Your task to perform on an android device: Search for Italian restaurants on Maps Image 0: 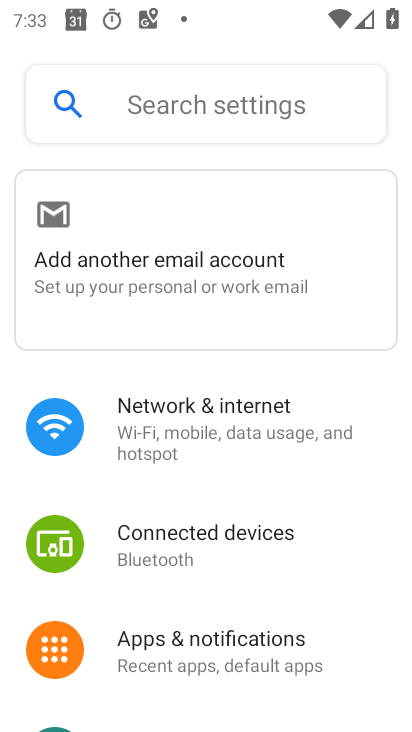
Step 0: press home button
Your task to perform on an android device: Search for Italian restaurants on Maps Image 1: 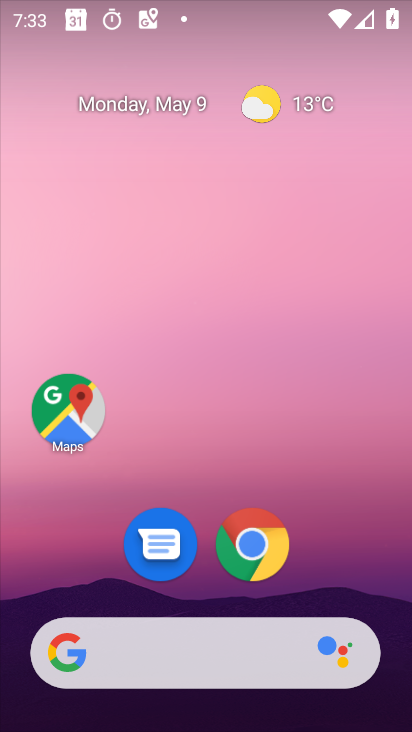
Step 1: drag from (357, 564) to (323, 128)
Your task to perform on an android device: Search for Italian restaurants on Maps Image 2: 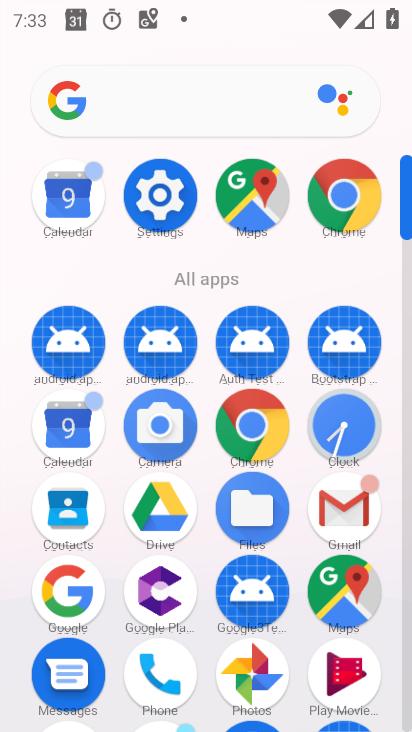
Step 2: click (257, 195)
Your task to perform on an android device: Search for Italian restaurants on Maps Image 3: 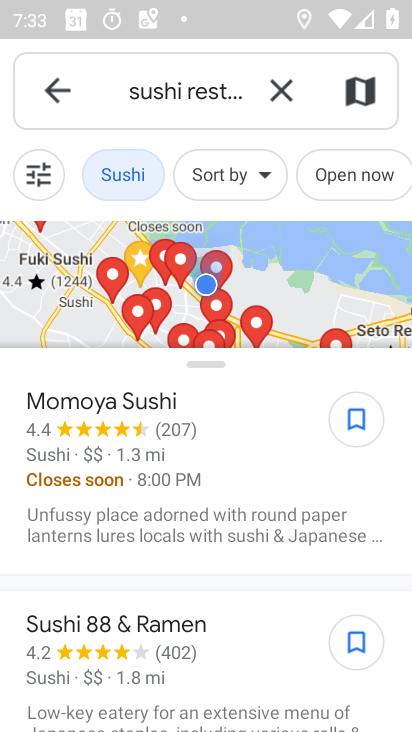
Step 3: click (283, 67)
Your task to perform on an android device: Search for Italian restaurants on Maps Image 4: 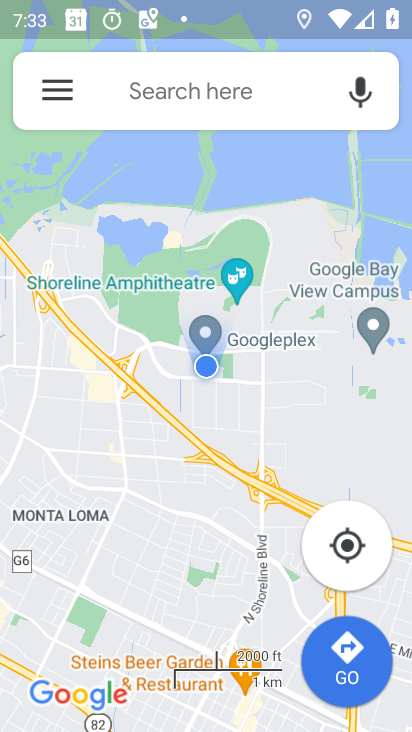
Step 4: click (249, 95)
Your task to perform on an android device: Search for Italian restaurants on Maps Image 5: 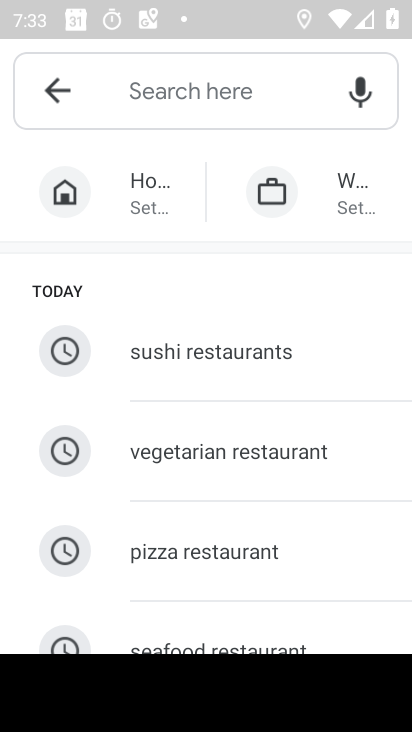
Step 5: drag from (219, 583) to (254, 203)
Your task to perform on an android device: Search for Italian restaurants on Maps Image 6: 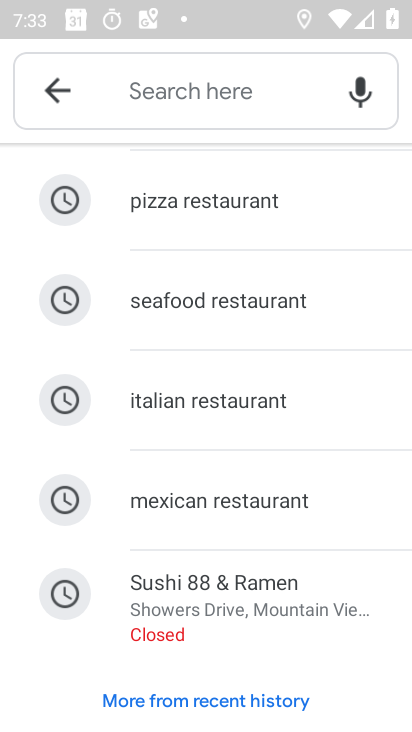
Step 6: click (205, 408)
Your task to perform on an android device: Search for Italian restaurants on Maps Image 7: 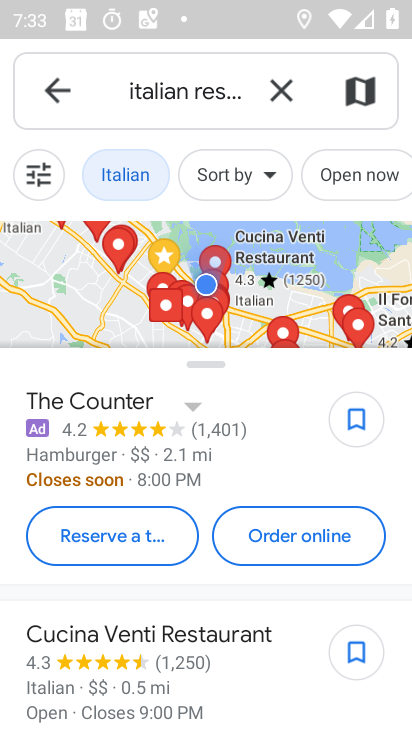
Step 7: task complete